Your task to perform on an android device: Open Google Maps and go to "Timeline" Image 0: 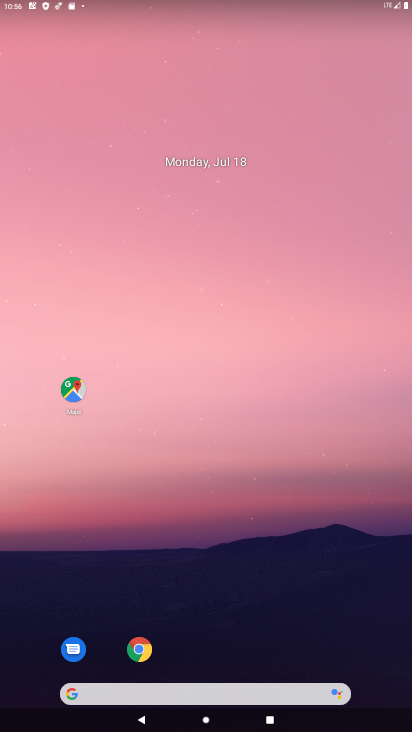
Step 0: click (71, 390)
Your task to perform on an android device: Open Google Maps and go to "Timeline" Image 1: 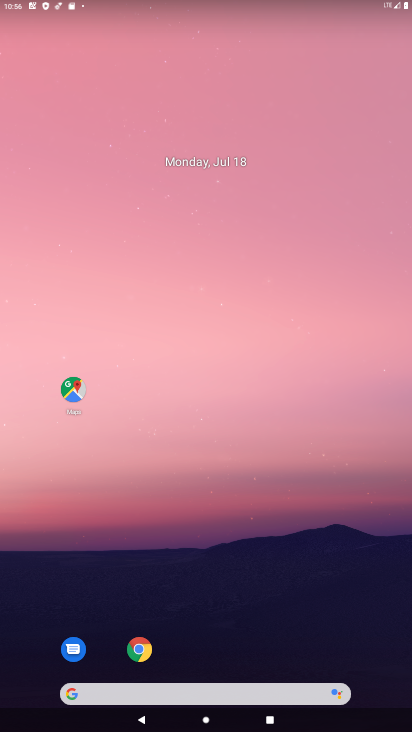
Step 1: click (71, 390)
Your task to perform on an android device: Open Google Maps and go to "Timeline" Image 2: 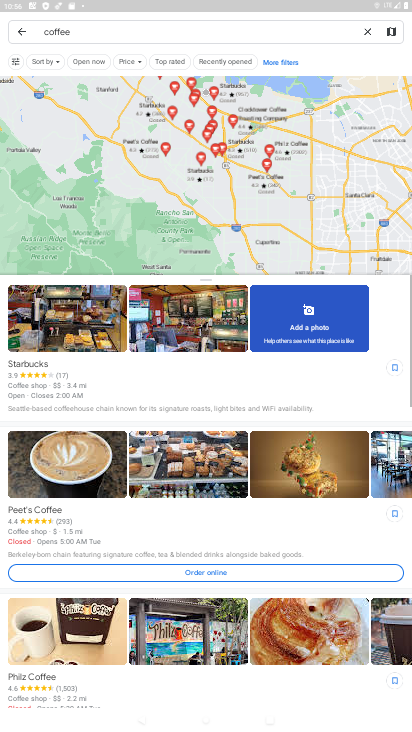
Step 2: click (367, 31)
Your task to perform on an android device: Open Google Maps and go to "Timeline" Image 3: 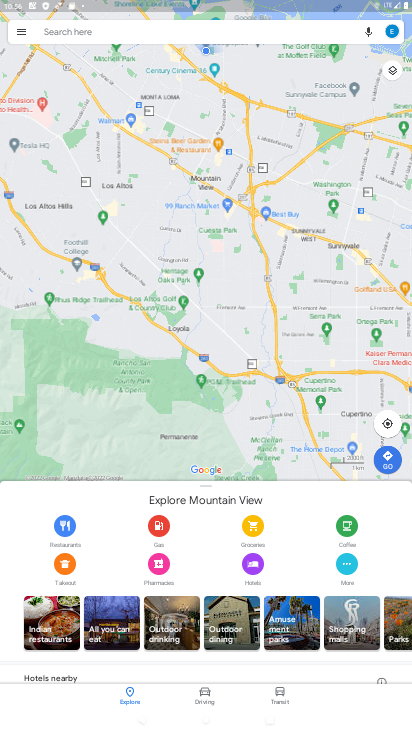
Step 3: click (21, 32)
Your task to perform on an android device: Open Google Maps and go to "Timeline" Image 4: 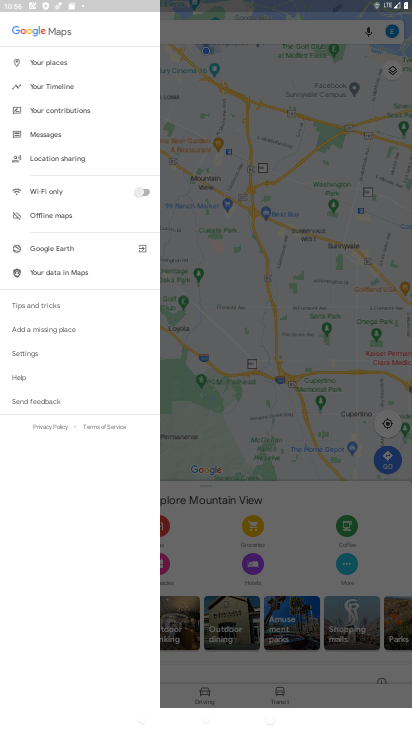
Step 4: click (36, 85)
Your task to perform on an android device: Open Google Maps and go to "Timeline" Image 5: 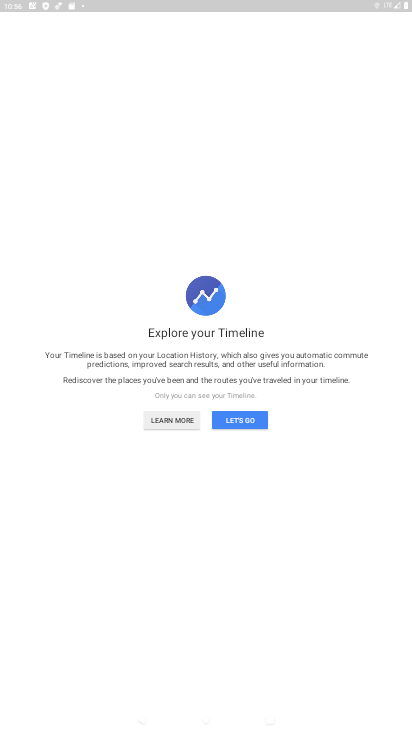
Step 5: click (251, 417)
Your task to perform on an android device: Open Google Maps and go to "Timeline" Image 6: 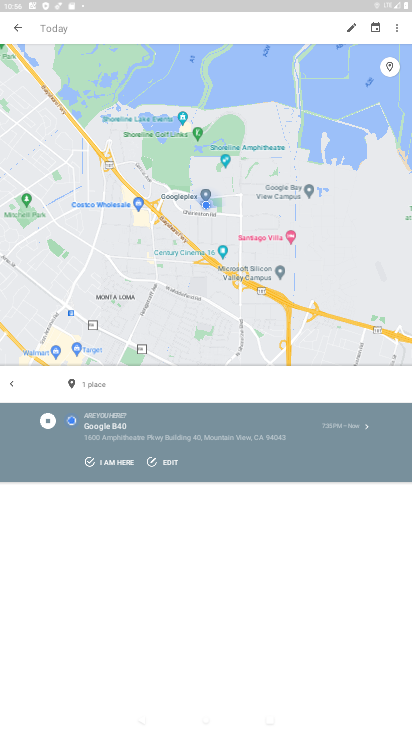
Step 6: task complete